Your task to perform on an android device: Open Amazon Image 0: 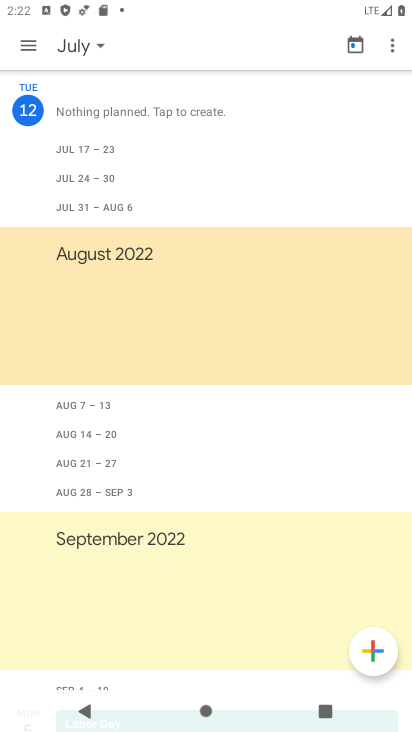
Step 0: press home button
Your task to perform on an android device: Open Amazon Image 1: 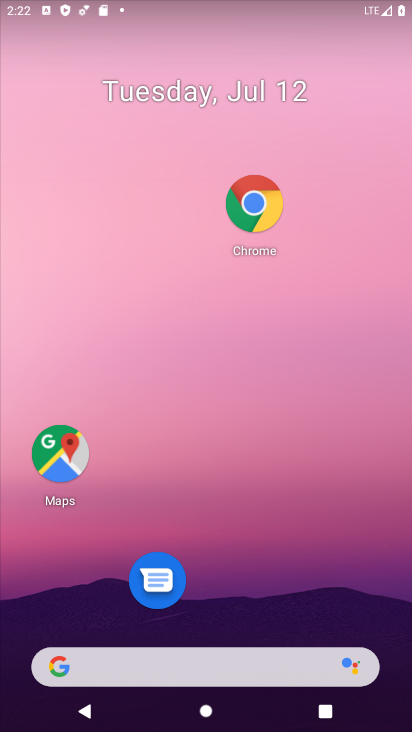
Step 1: click (254, 203)
Your task to perform on an android device: Open Amazon Image 2: 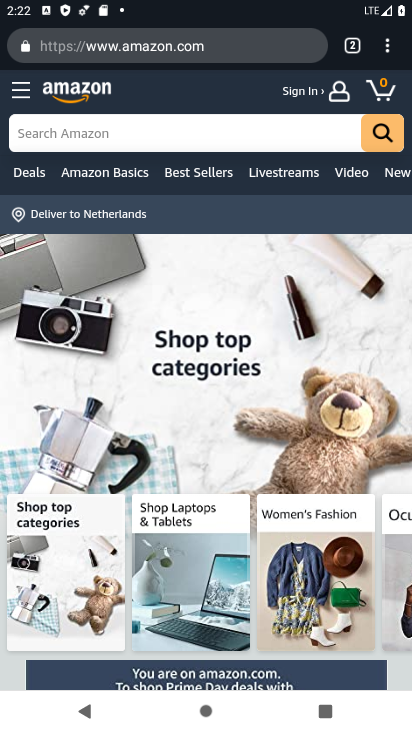
Step 2: task complete